Your task to perform on an android device: check google app version Image 0: 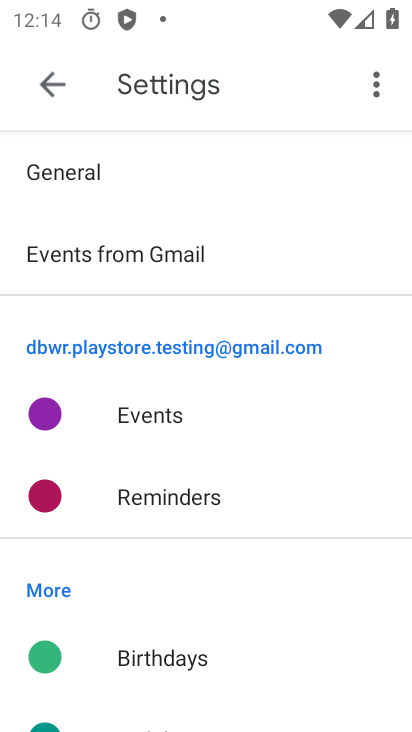
Step 0: press home button
Your task to perform on an android device: check google app version Image 1: 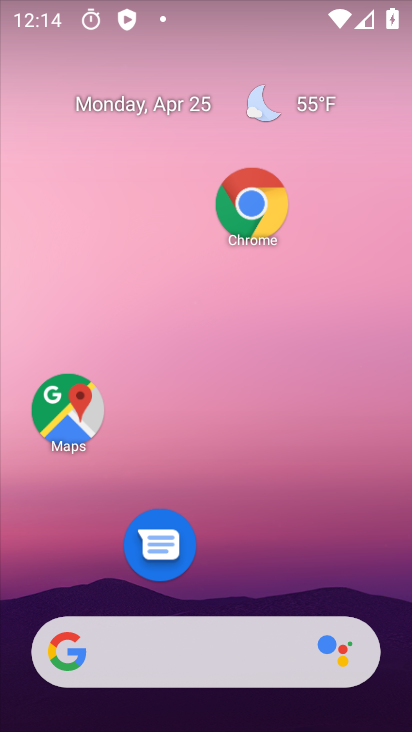
Step 1: drag from (264, 687) to (217, 231)
Your task to perform on an android device: check google app version Image 2: 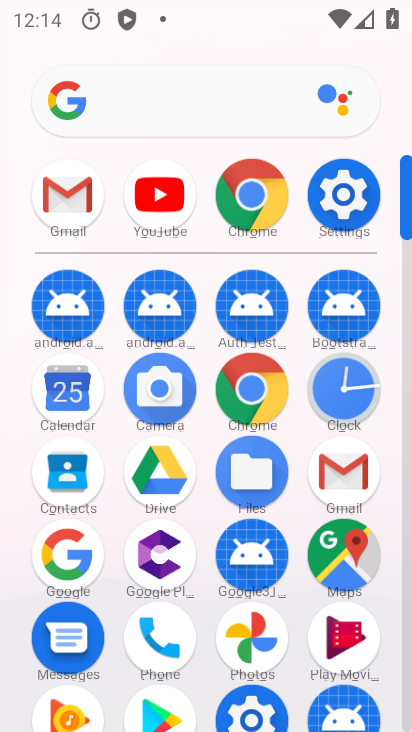
Step 2: click (235, 193)
Your task to perform on an android device: check google app version Image 3: 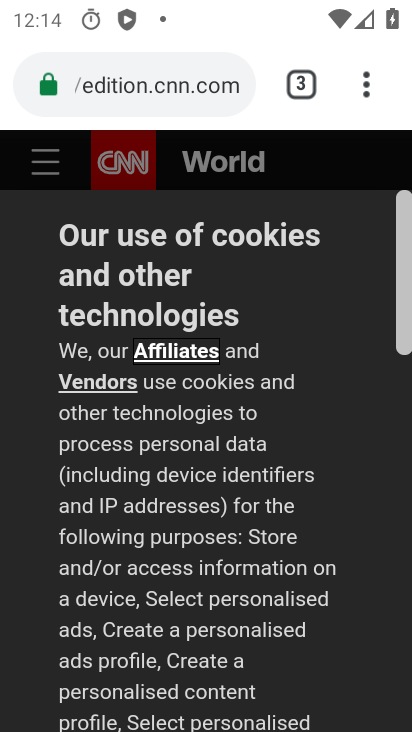
Step 3: click (361, 85)
Your task to perform on an android device: check google app version Image 4: 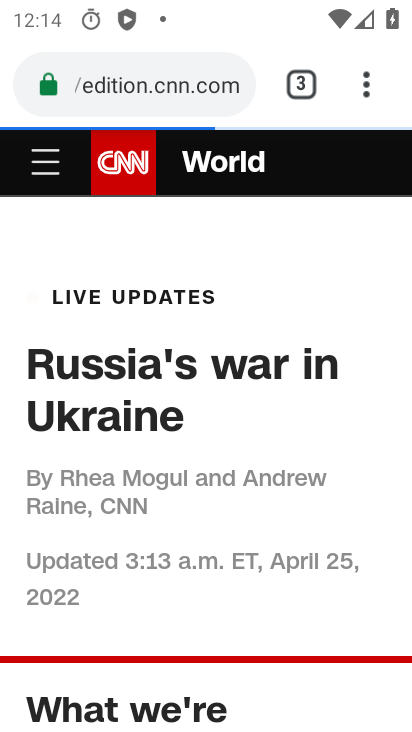
Step 4: click (367, 98)
Your task to perform on an android device: check google app version Image 5: 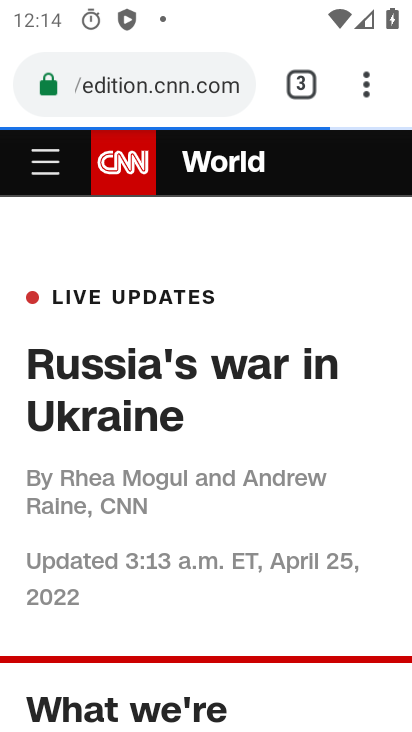
Step 5: click (367, 96)
Your task to perform on an android device: check google app version Image 6: 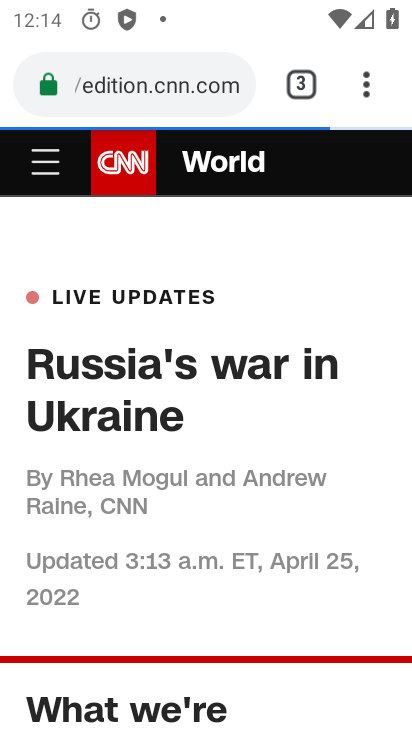
Step 6: click (359, 103)
Your task to perform on an android device: check google app version Image 7: 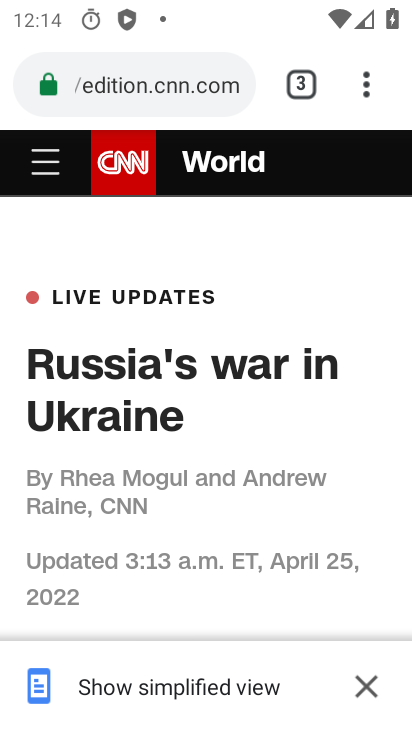
Step 7: click (353, 88)
Your task to perform on an android device: check google app version Image 8: 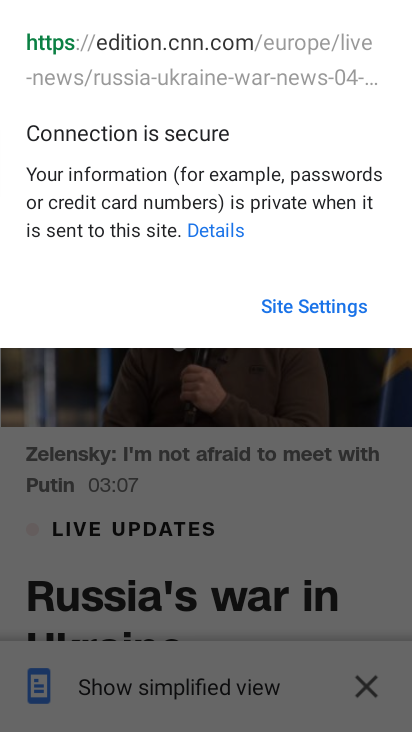
Step 8: press back button
Your task to perform on an android device: check google app version Image 9: 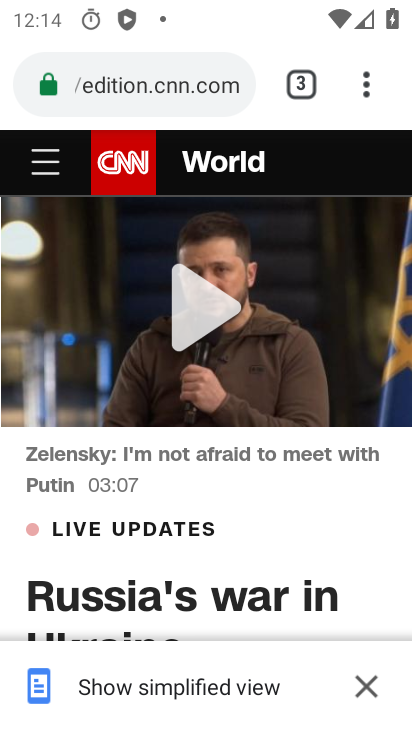
Step 9: click (378, 96)
Your task to perform on an android device: check google app version Image 10: 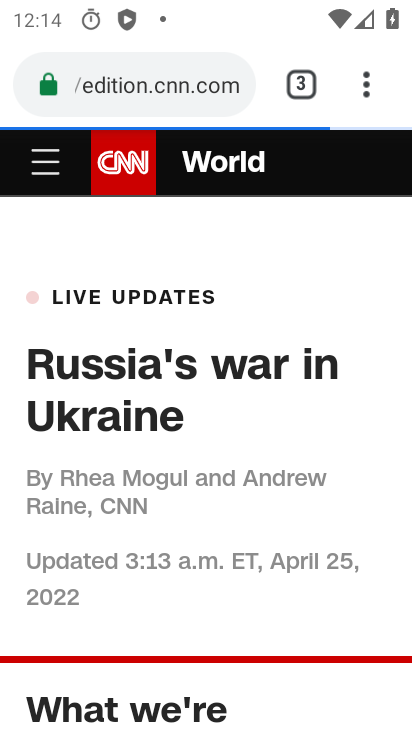
Step 10: click (371, 106)
Your task to perform on an android device: check google app version Image 11: 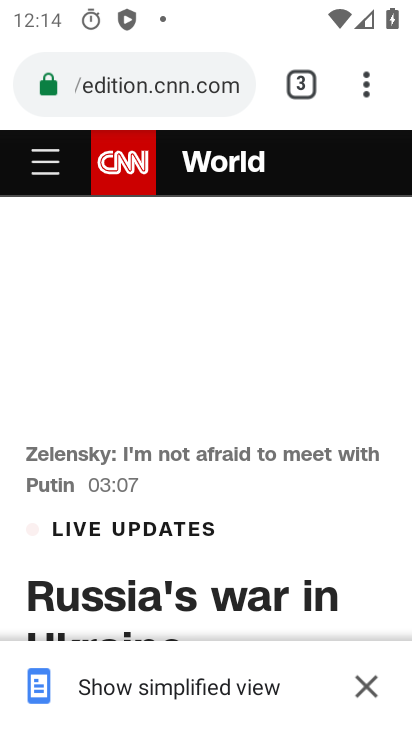
Step 11: click (372, 90)
Your task to perform on an android device: check google app version Image 12: 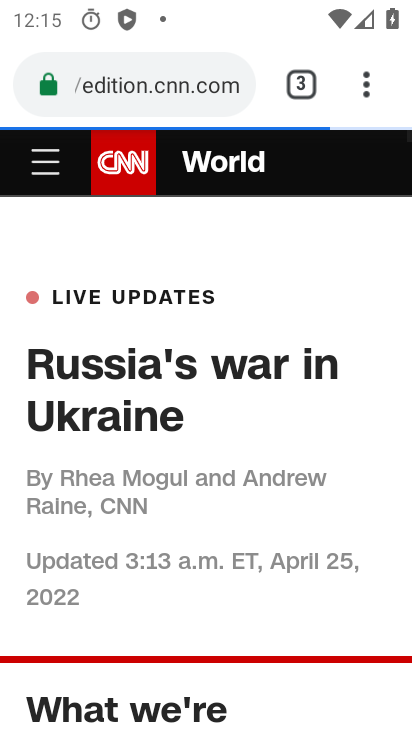
Step 12: click (288, 83)
Your task to perform on an android device: check google app version Image 13: 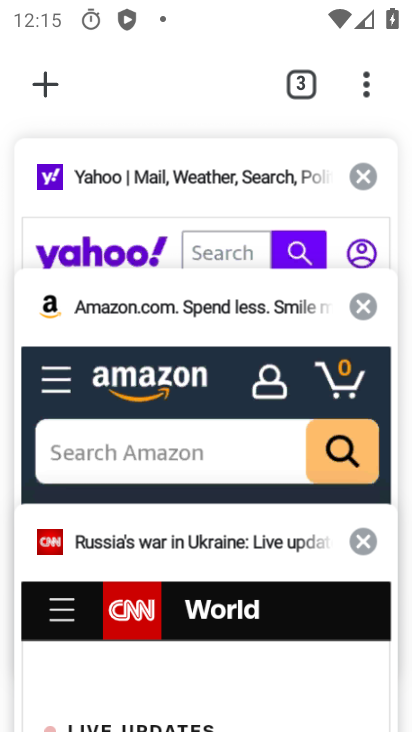
Step 13: click (52, 83)
Your task to perform on an android device: check google app version Image 14: 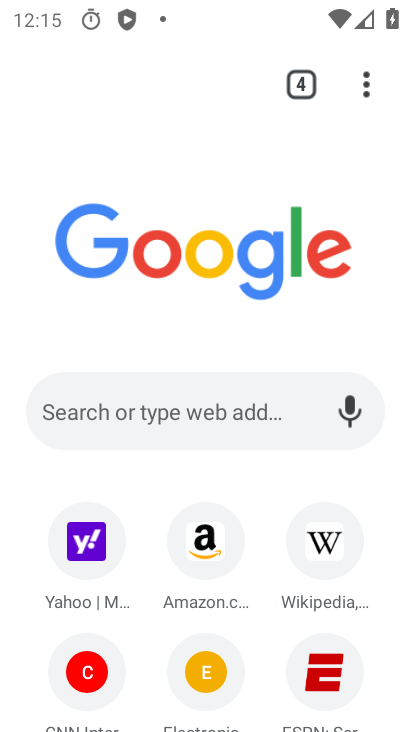
Step 14: click (365, 85)
Your task to perform on an android device: check google app version Image 15: 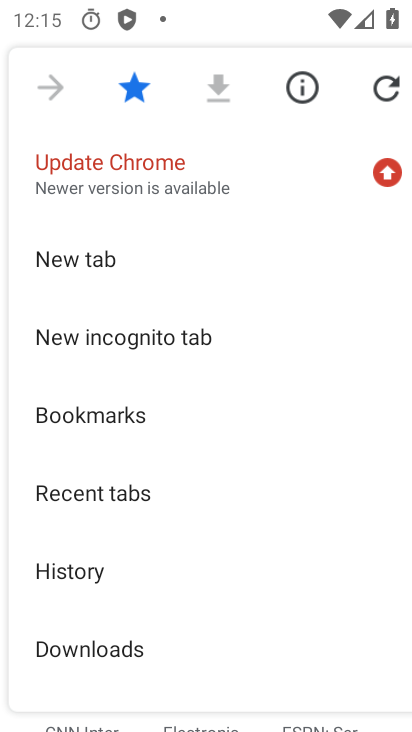
Step 15: drag from (160, 638) to (174, 507)
Your task to perform on an android device: check google app version Image 16: 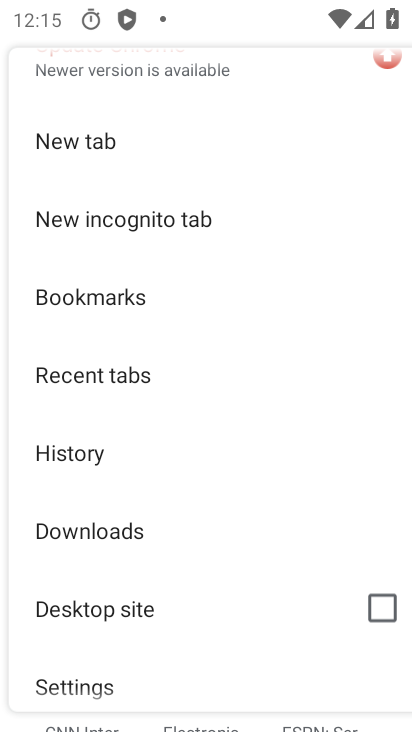
Step 16: click (110, 681)
Your task to perform on an android device: check google app version Image 17: 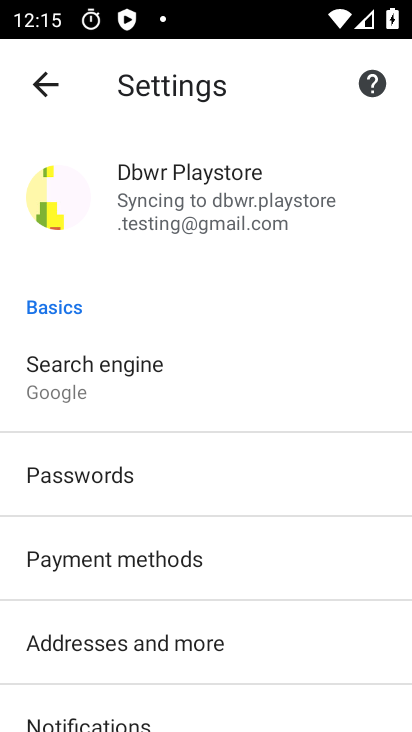
Step 17: drag from (134, 703) to (202, 462)
Your task to perform on an android device: check google app version Image 18: 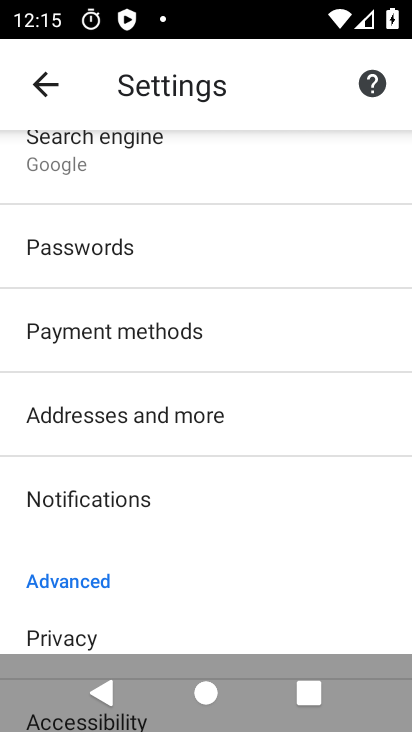
Step 18: drag from (190, 588) to (285, 202)
Your task to perform on an android device: check google app version Image 19: 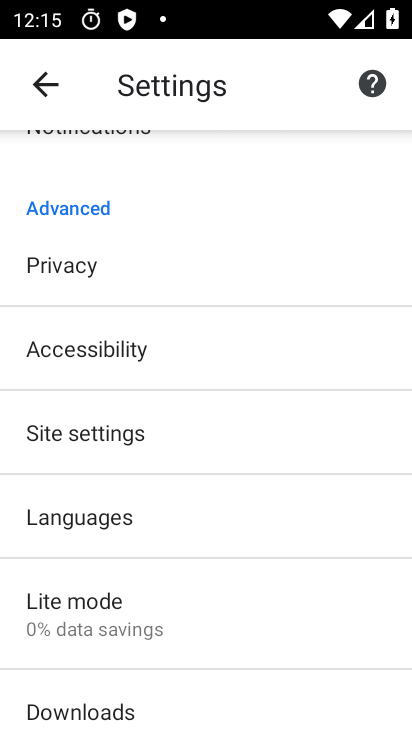
Step 19: drag from (134, 579) to (269, 271)
Your task to perform on an android device: check google app version Image 20: 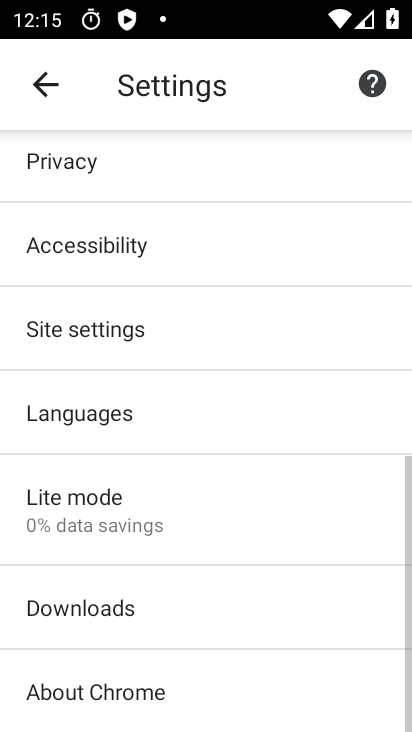
Step 20: click (112, 680)
Your task to perform on an android device: check google app version Image 21: 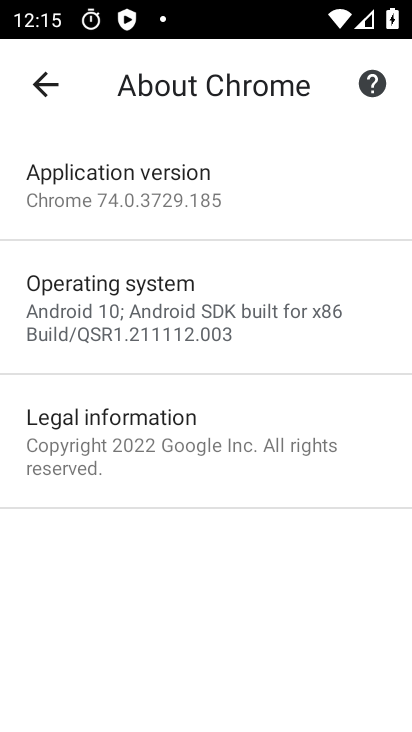
Step 21: click (180, 206)
Your task to perform on an android device: check google app version Image 22: 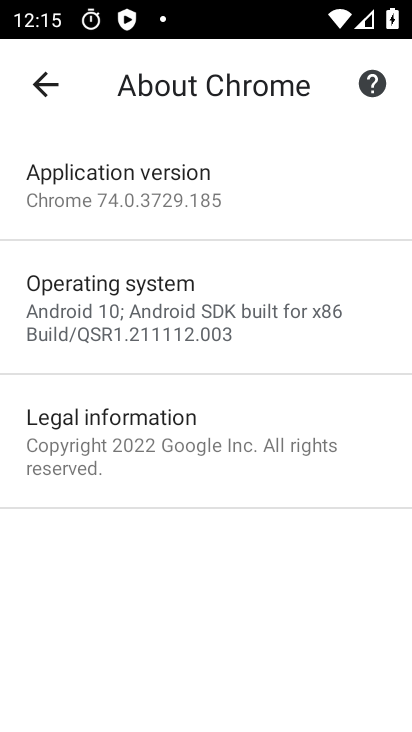
Step 22: task complete